Your task to perform on an android device: change the clock display to analog Image 0: 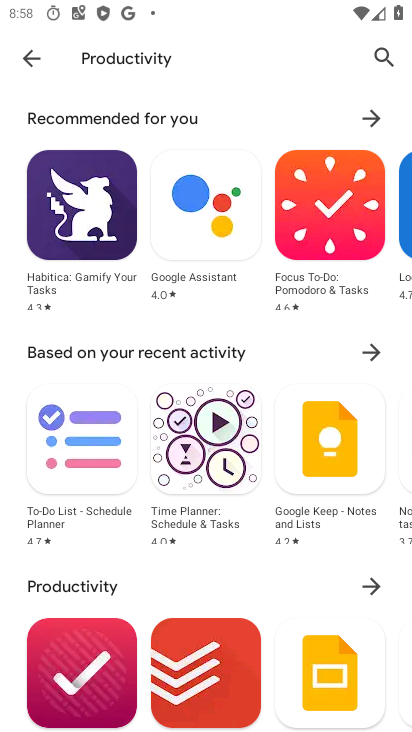
Step 0: press home button
Your task to perform on an android device: change the clock display to analog Image 1: 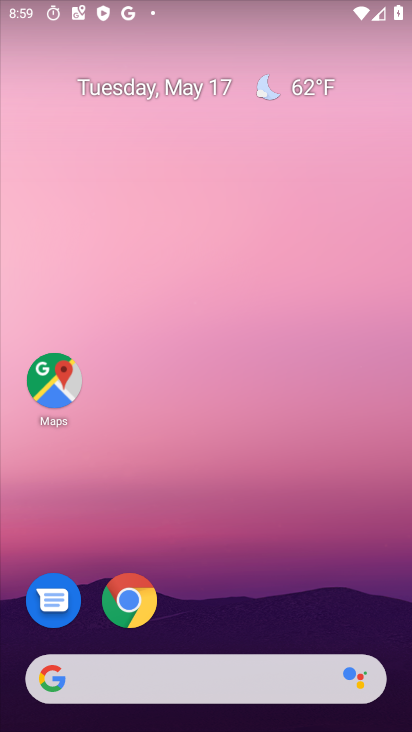
Step 1: drag from (221, 712) to (226, 174)
Your task to perform on an android device: change the clock display to analog Image 2: 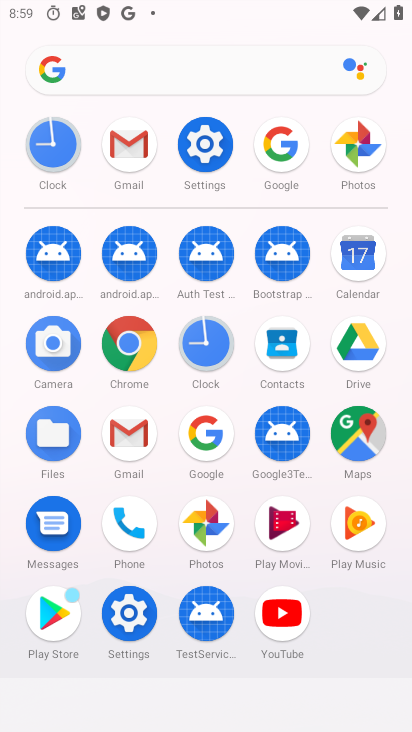
Step 2: click (200, 344)
Your task to perform on an android device: change the clock display to analog Image 3: 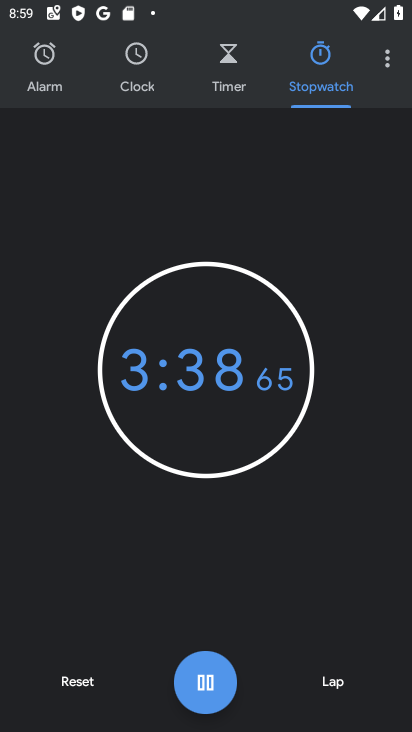
Step 3: click (389, 68)
Your task to perform on an android device: change the clock display to analog Image 4: 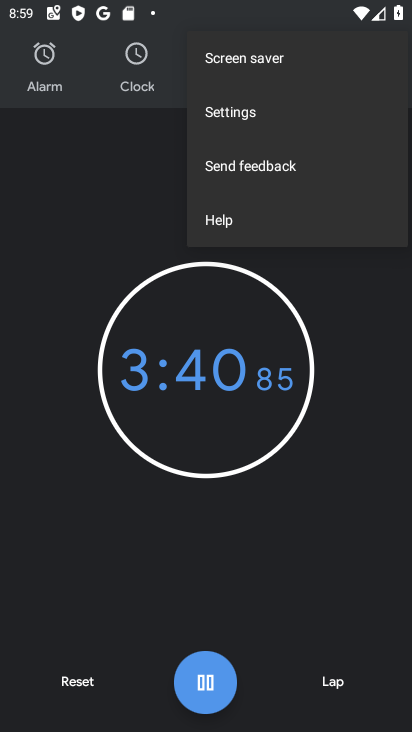
Step 4: click (233, 114)
Your task to perform on an android device: change the clock display to analog Image 5: 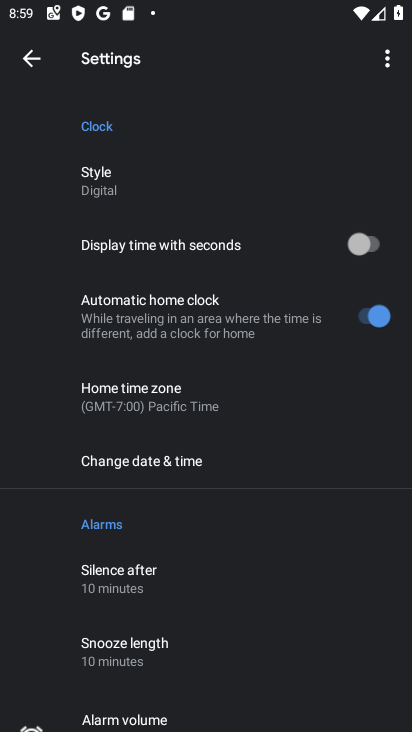
Step 5: click (104, 188)
Your task to perform on an android device: change the clock display to analog Image 6: 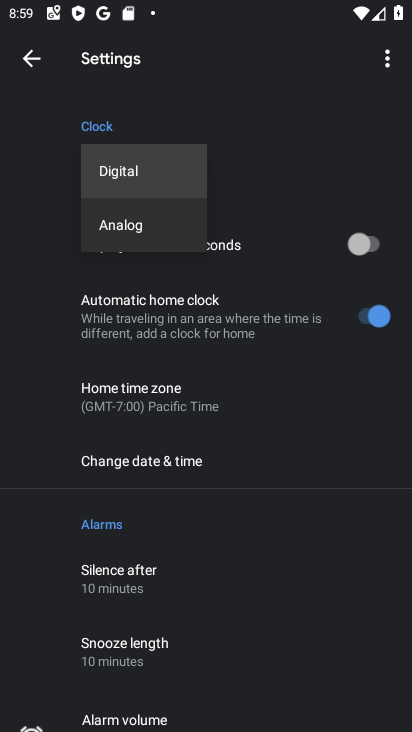
Step 6: click (108, 222)
Your task to perform on an android device: change the clock display to analog Image 7: 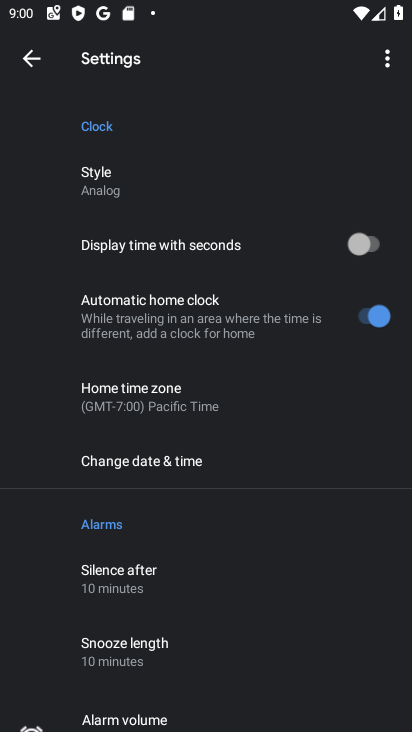
Step 7: task complete